Your task to perform on an android device: toggle translation in the chrome app Image 0: 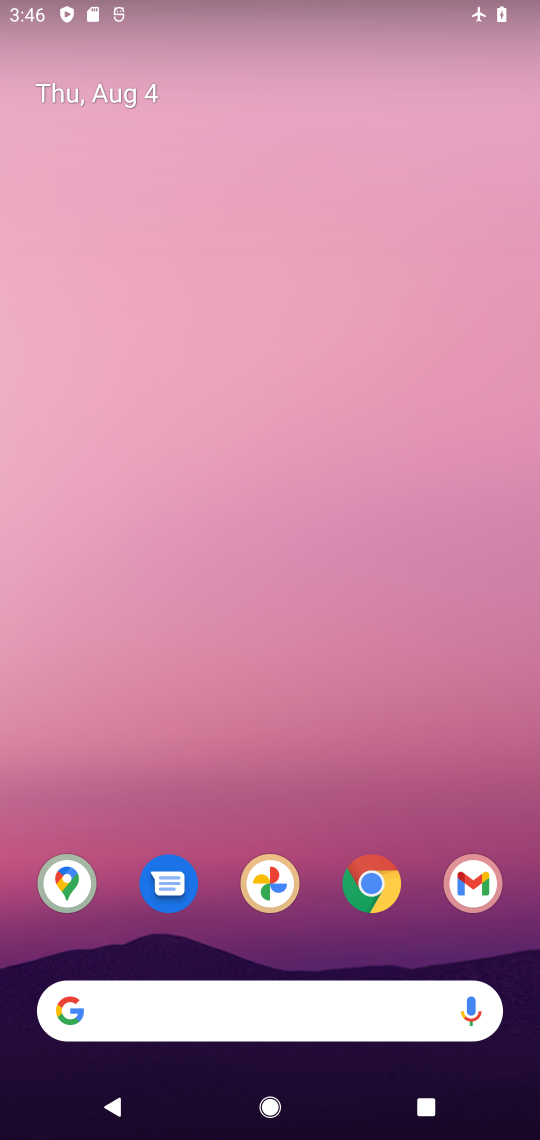
Step 0: drag from (389, 684) to (215, 88)
Your task to perform on an android device: toggle translation in the chrome app Image 1: 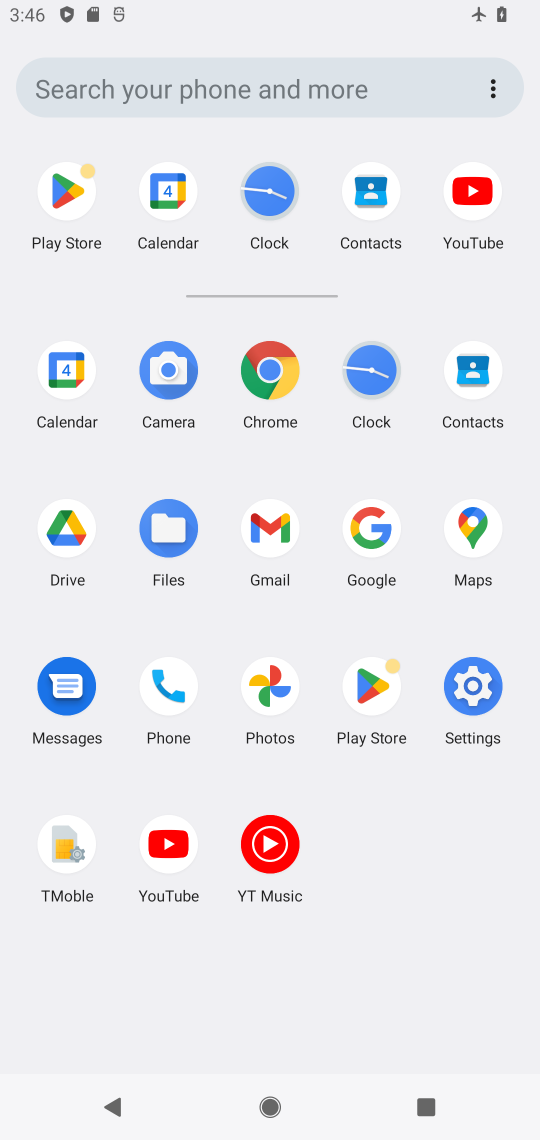
Step 1: click (264, 374)
Your task to perform on an android device: toggle translation in the chrome app Image 2: 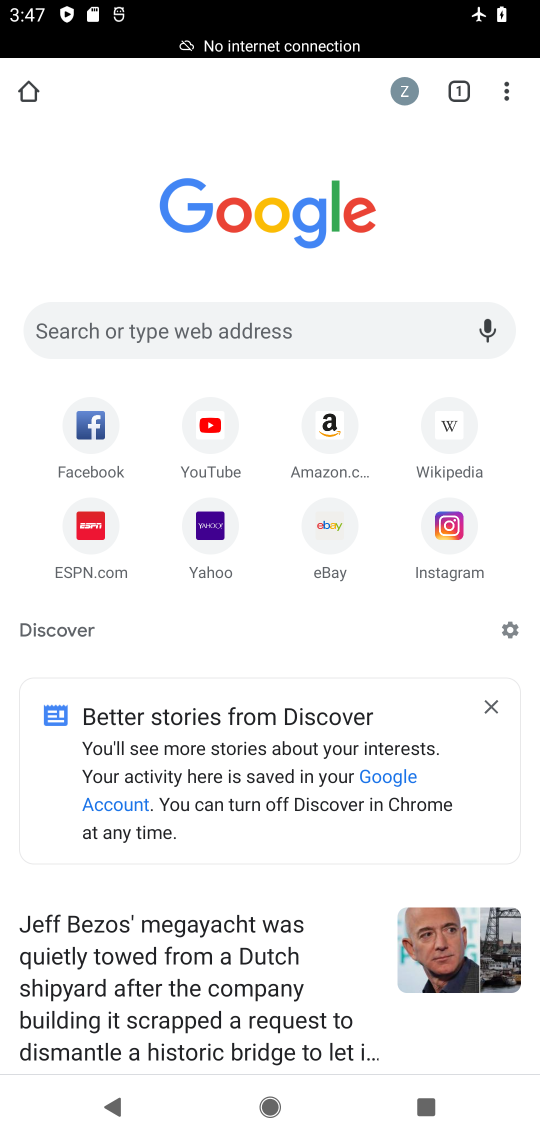
Step 2: click (502, 86)
Your task to perform on an android device: toggle translation in the chrome app Image 3: 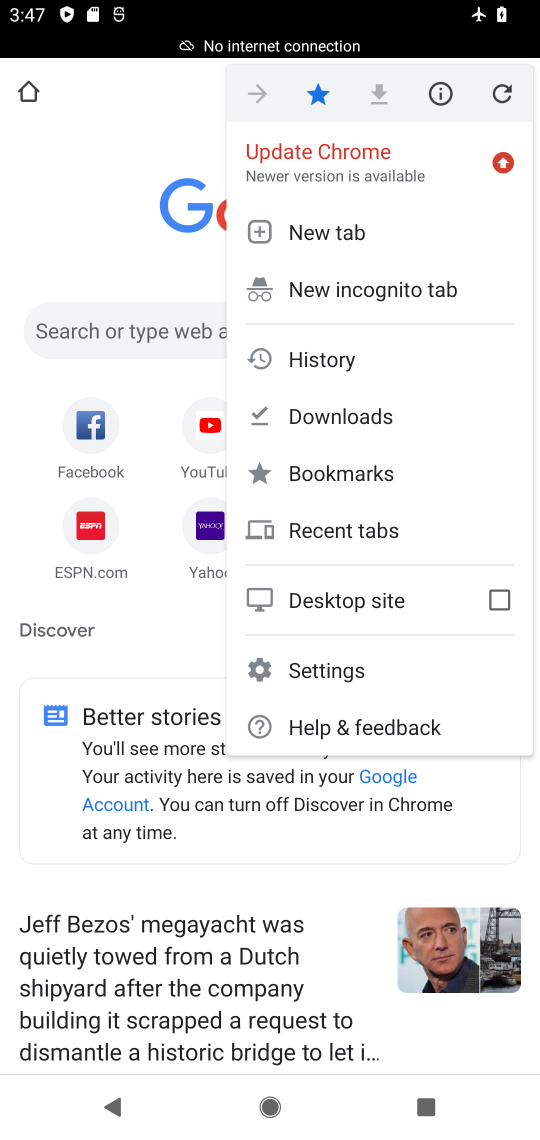
Step 3: click (333, 660)
Your task to perform on an android device: toggle translation in the chrome app Image 4: 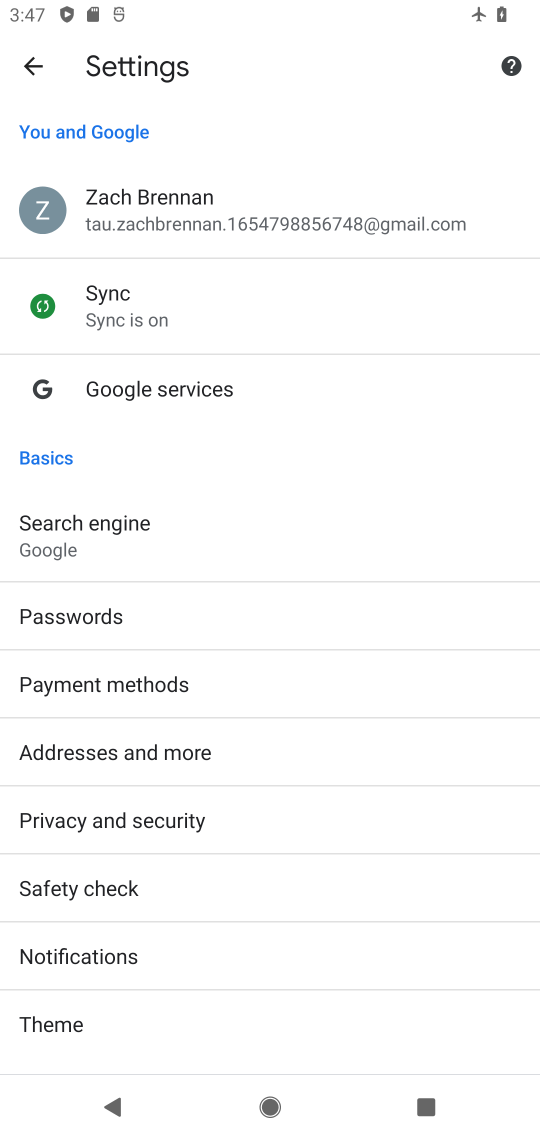
Step 4: drag from (127, 1004) to (118, 428)
Your task to perform on an android device: toggle translation in the chrome app Image 5: 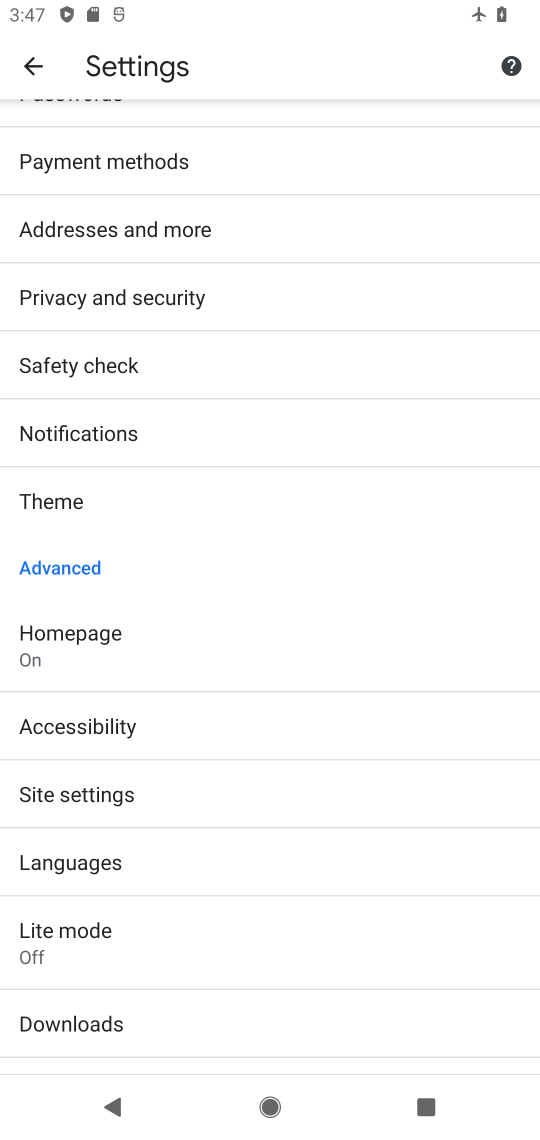
Step 5: click (125, 866)
Your task to perform on an android device: toggle translation in the chrome app Image 6: 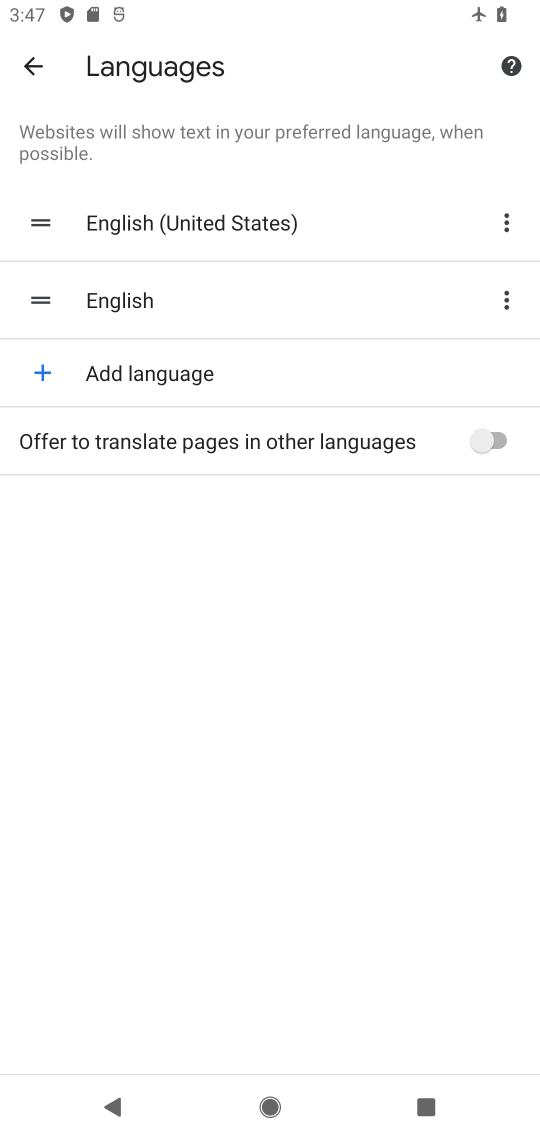
Step 6: click (486, 451)
Your task to perform on an android device: toggle translation in the chrome app Image 7: 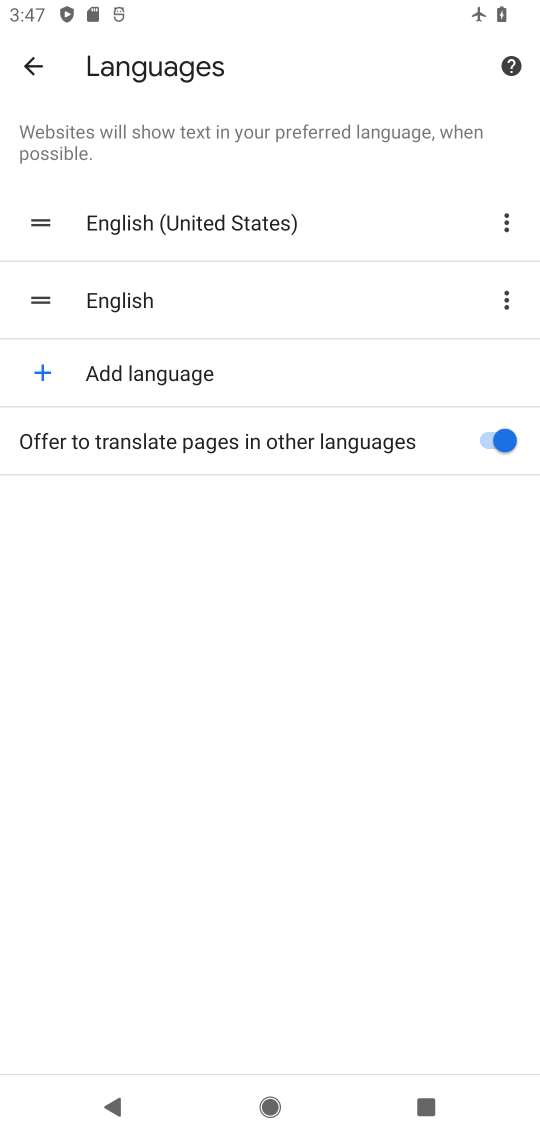
Step 7: task complete